Your task to perform on an android device: Open the web browser Image 0: 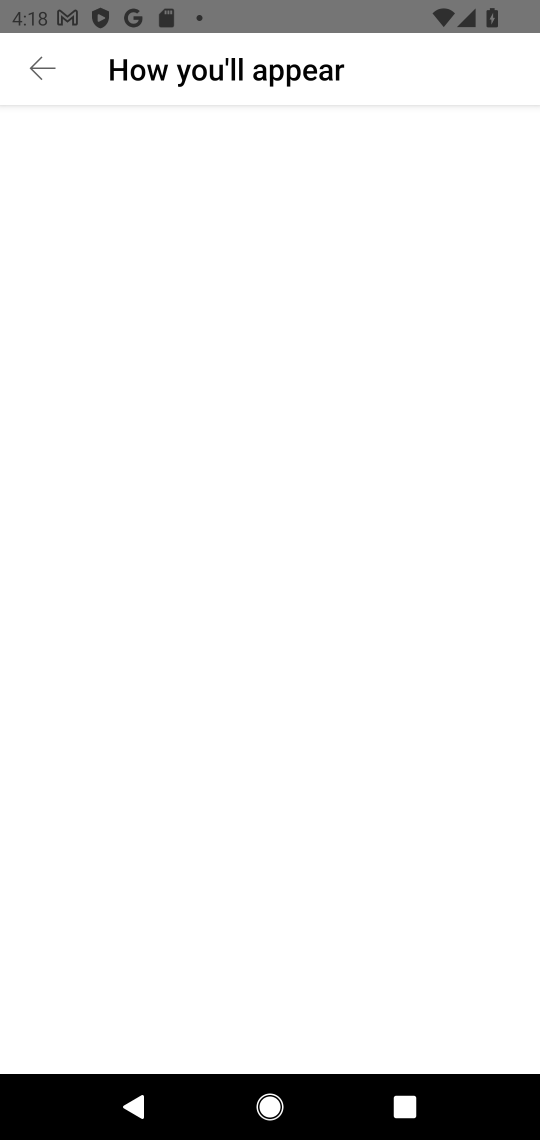
Step 0: press home button
Your task to perform on an android device: Open the web browser Image 1: 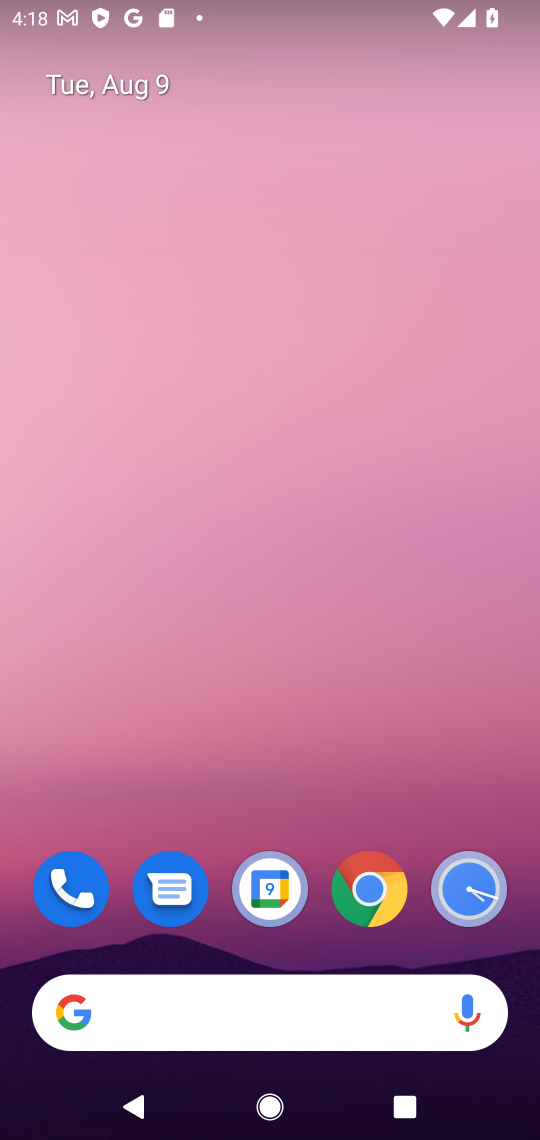
Step 1: click (306, 1013)
Your task to perform on an android device: Open the web browser Image 2: 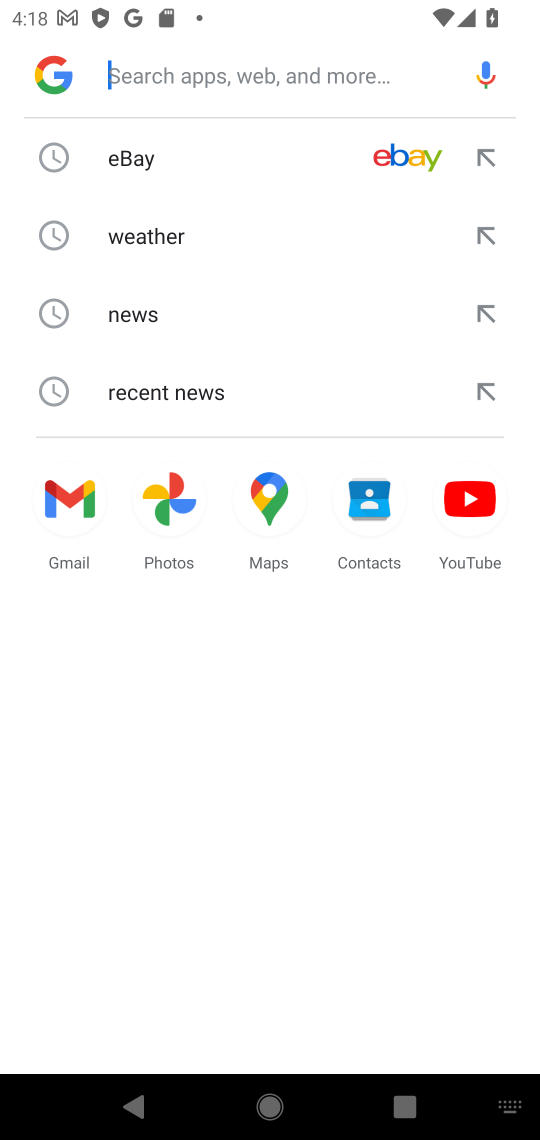
Step 2: task complete